Your task to perform on an android device: open a bookmark in the chrome app Image 0: 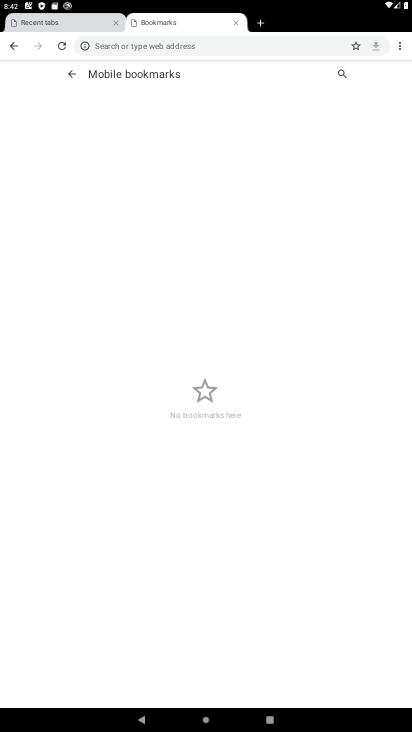
Step 0: task impossible